Your task to perform on an android device: What's the top post on reddit right now? Image 0: 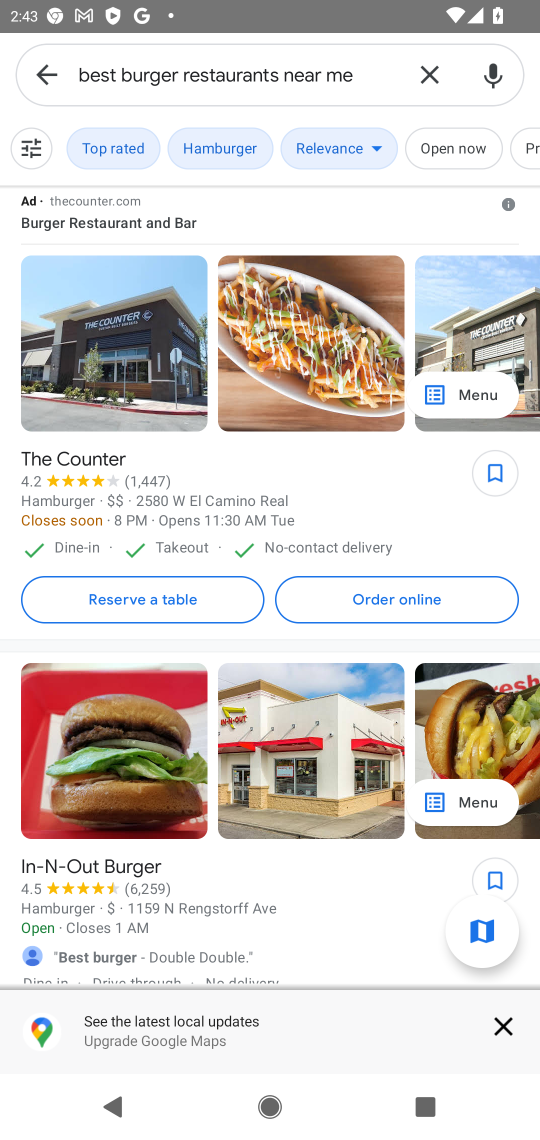
Step 0: press home button
Your task to perform on an android device: What's the top post on reddit right now? Image 1: 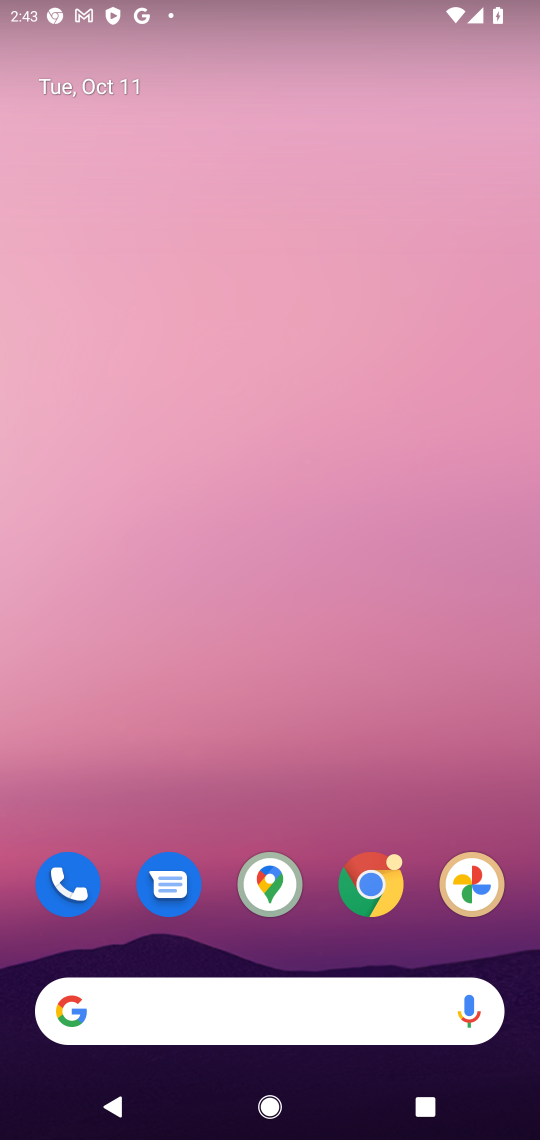
Step 1: click (373, 886)
Your task to perform on an android device: What's the top post on reddit right now? Image 2: 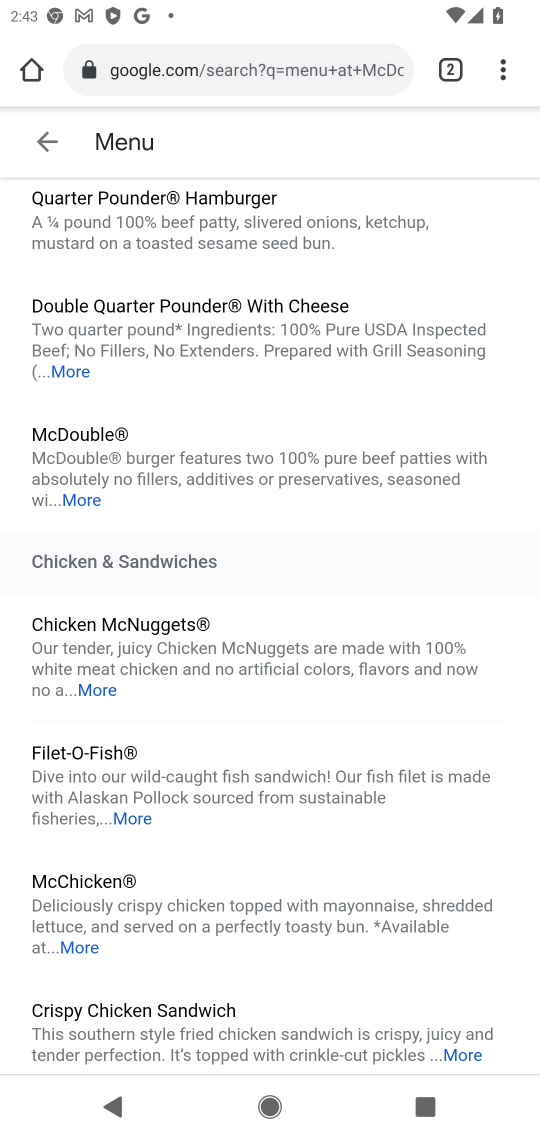
Step 2: click (292, 67)
Your task to perform on an android device: What's the top post on reddit right now? Image 3: 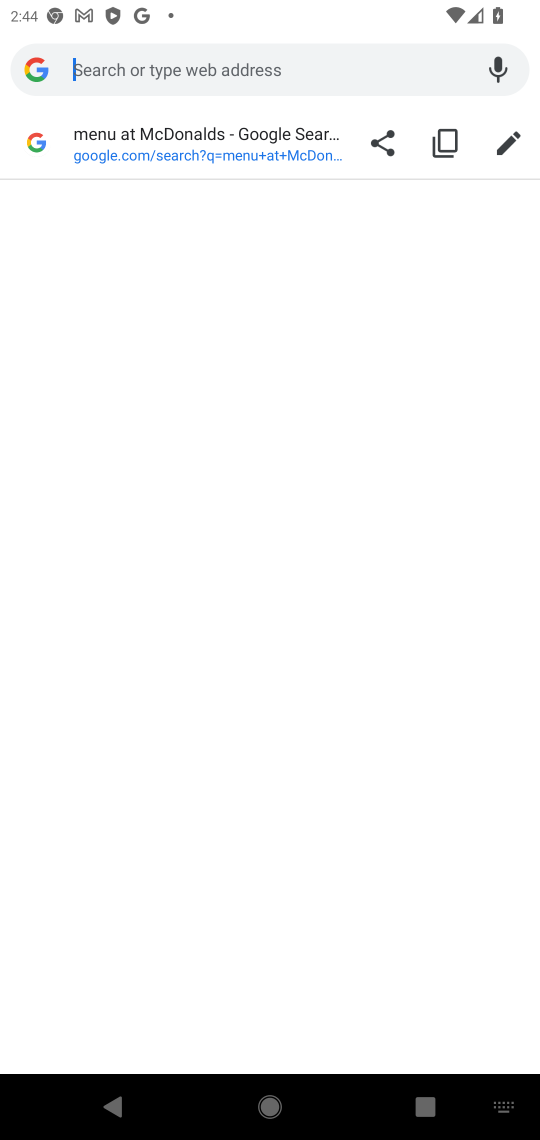
Step 3: type "Top post on reddit right now"
Your task to perform on an android device: What's the top post on reddit right now? Image 4: 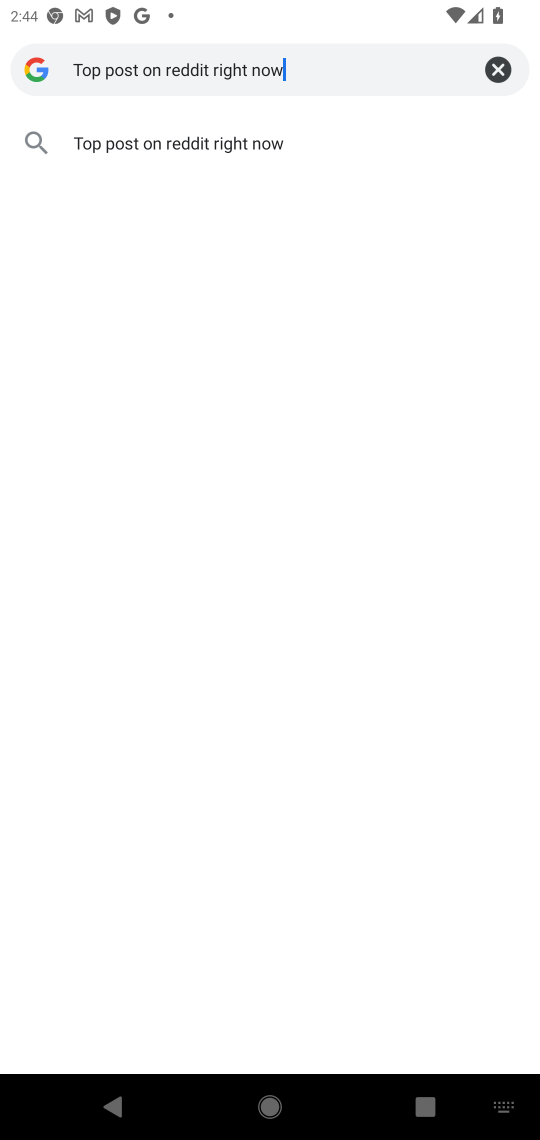
Step 4: click (227, 149)
Your task to perform on an android device: What's the top post on reddit right now? Image 5: 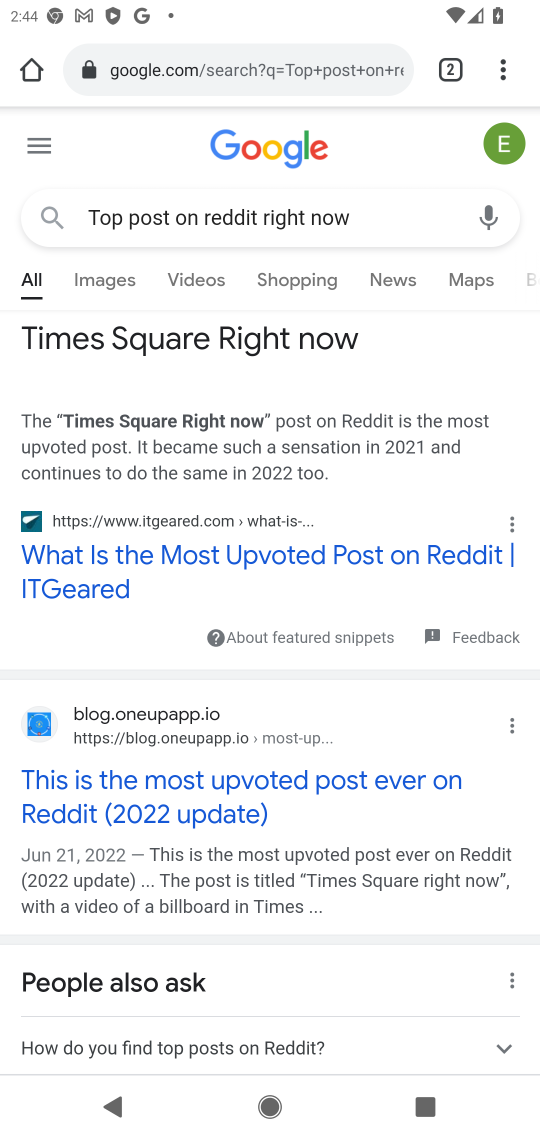
Step 5: task complete